Your task to perform on an android device: Search for sushi restaurants on Maps Image 0: 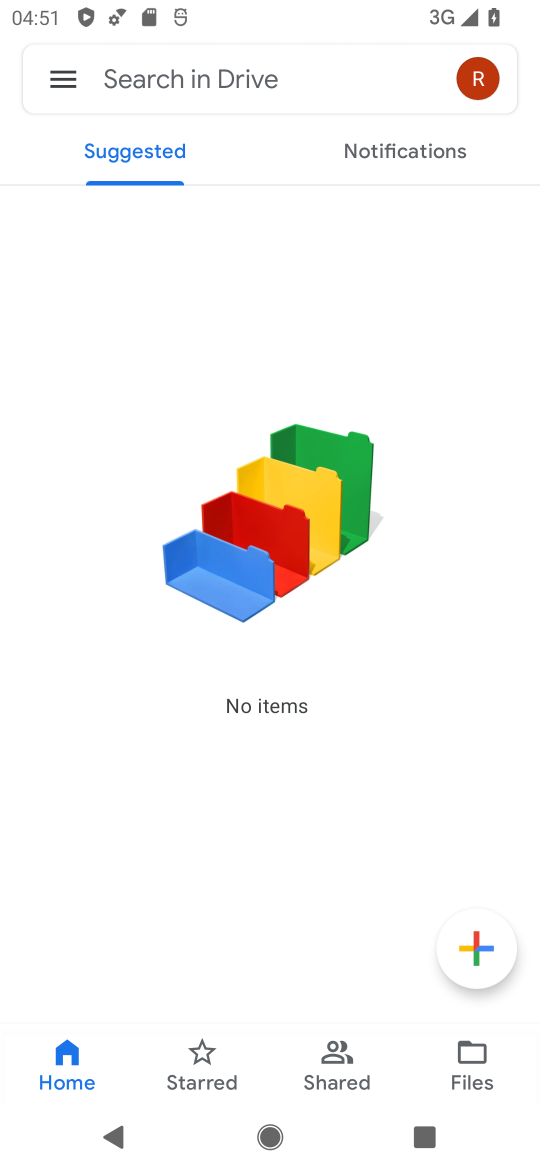
Step 0: press home button
Your task to perform on an android device: Search for sushi restaurants on Maps Image 1: 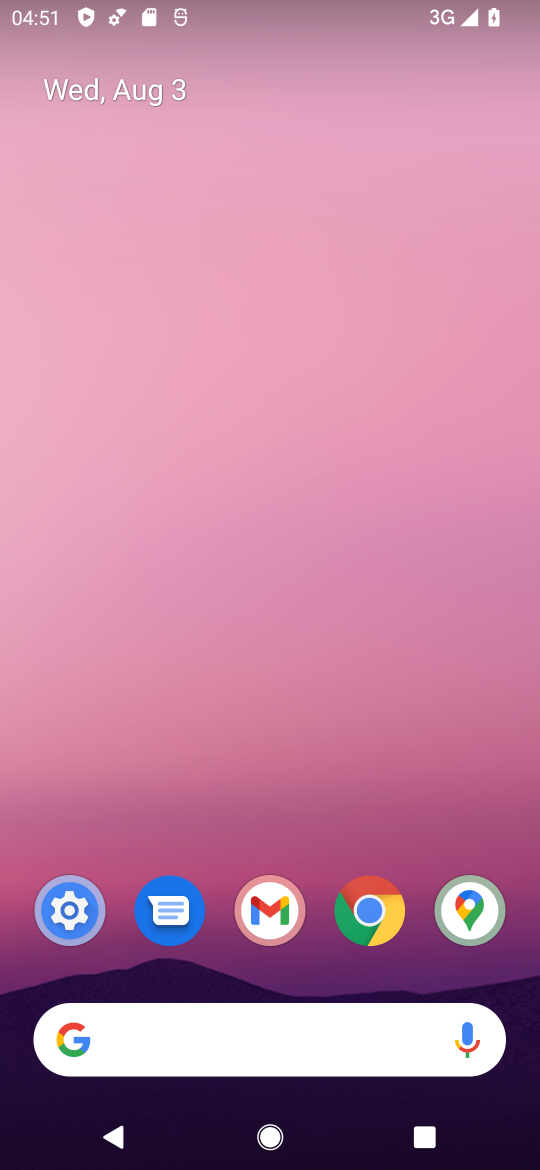
Step 1: click (471, 901)
Your task to perform on an android device: Search for sushi restaurants on Maps Image 2: 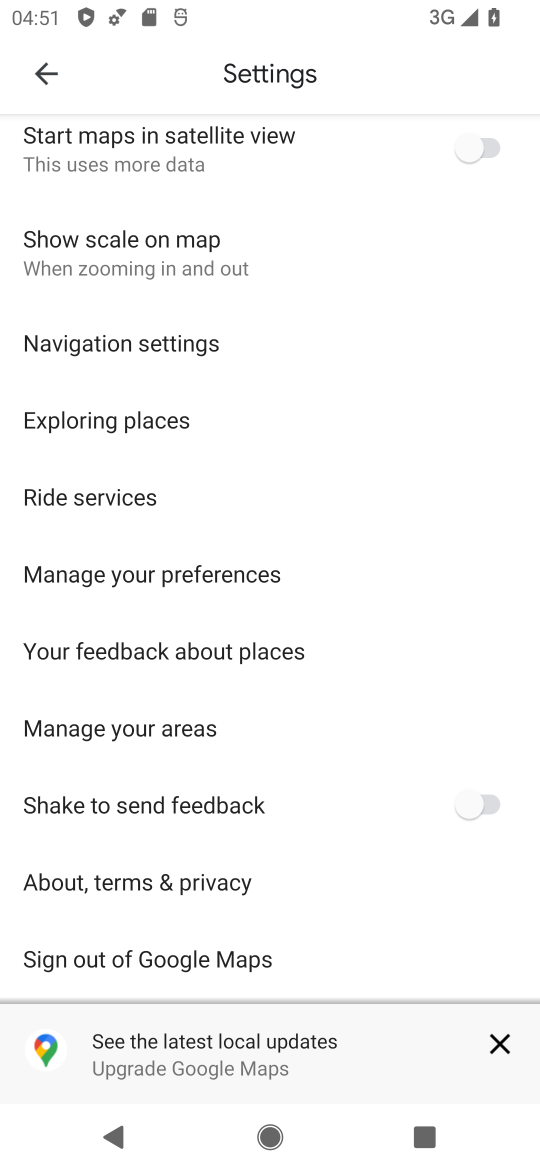
Step 2: click (59, 72)
Your task to perform on an android device: Search for sushi restaurants on Maps Image 3: 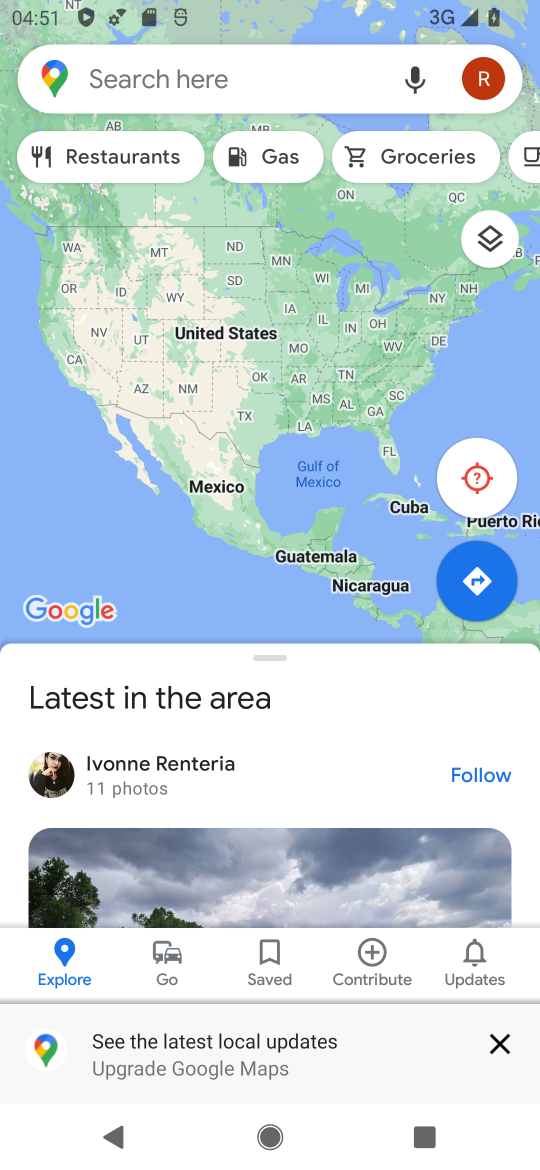
Step 3: click (185, 67)
Your task to perform on an android device: Search for sushi restaurants on Maps Image 4: 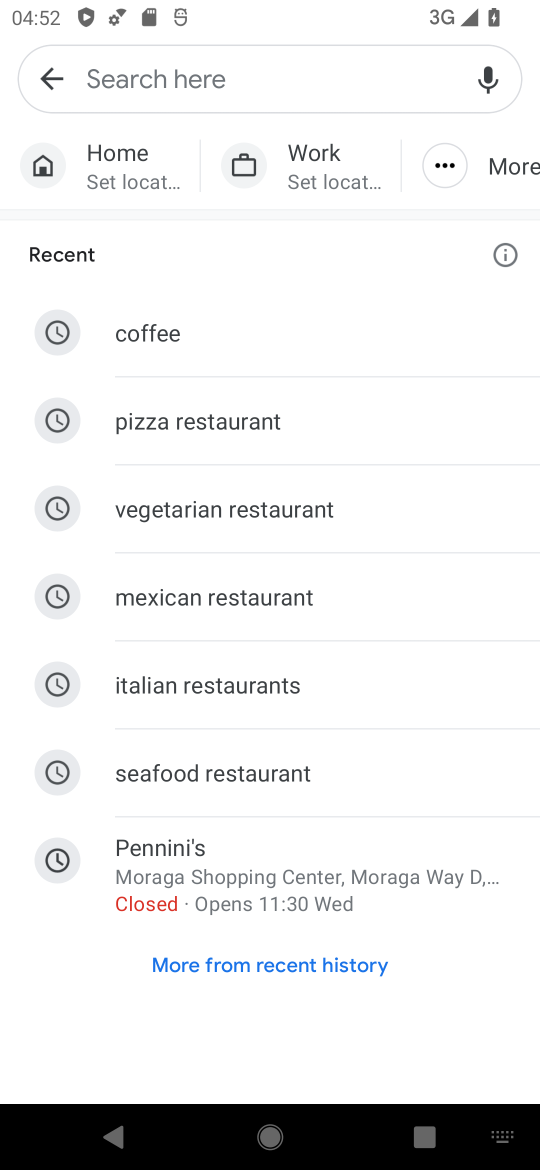
Step 4: type "sushi"
Your task to perform on an android device: Search for sushi restaurants on Maps Image 5: 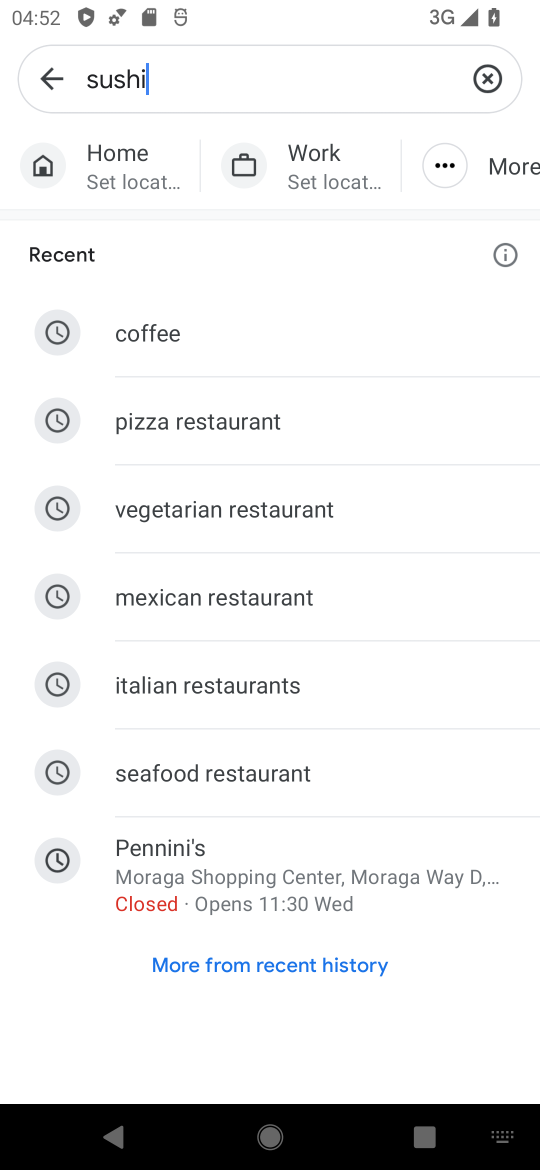
Step 5: type ""
Your task to perform on an android device: Search for sushi restaurants on Maps Image 6: 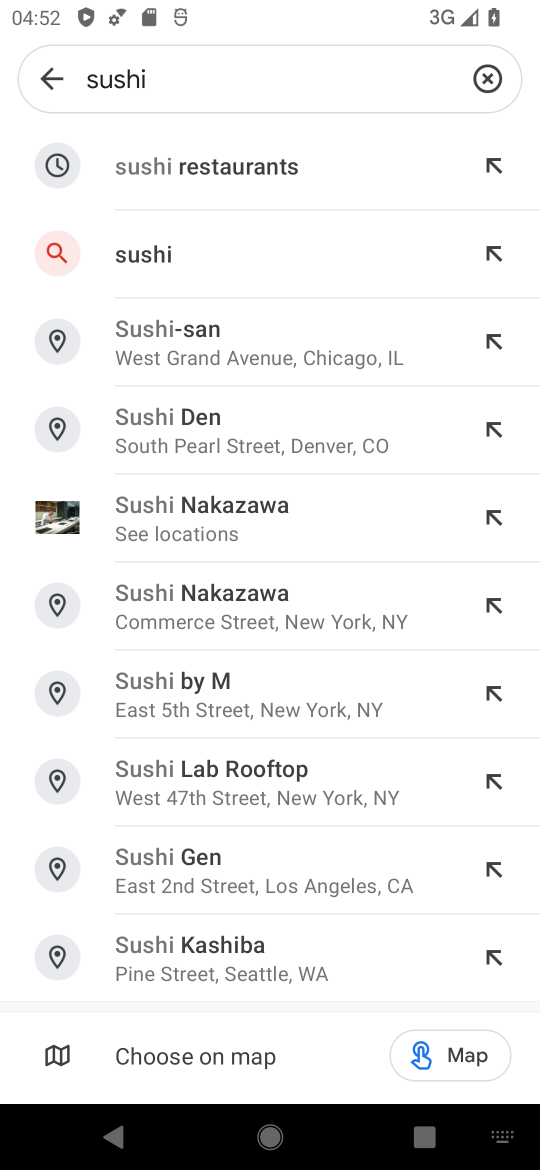
Step 6: click (243, 178)
Your task to perform on an android device: Search for sushi restaurants on Maps Image 7: 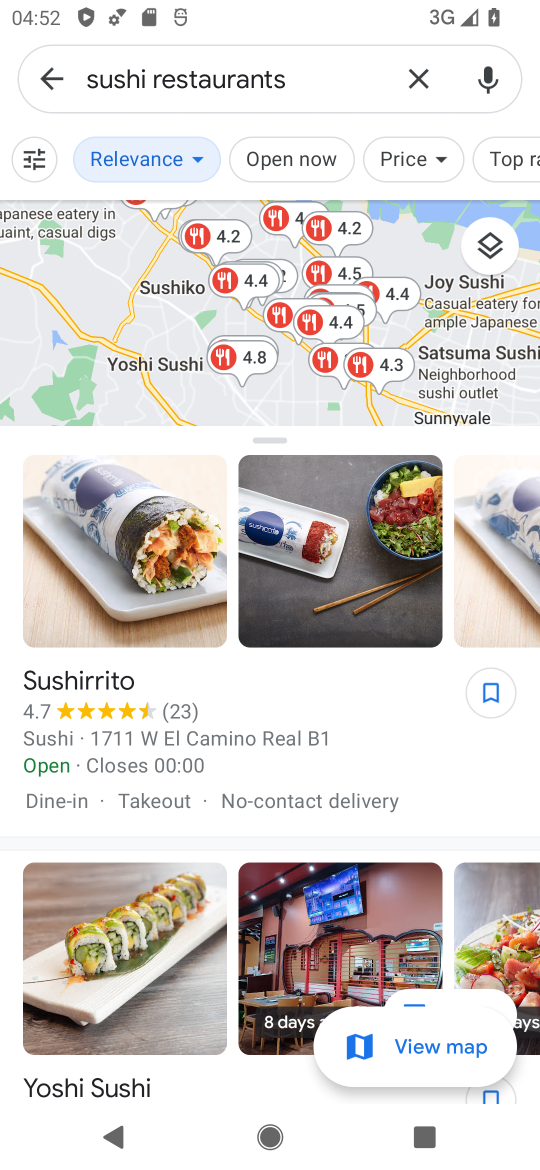
Step 7: task complete